Your task to perform on an android device: check storage Image 0: 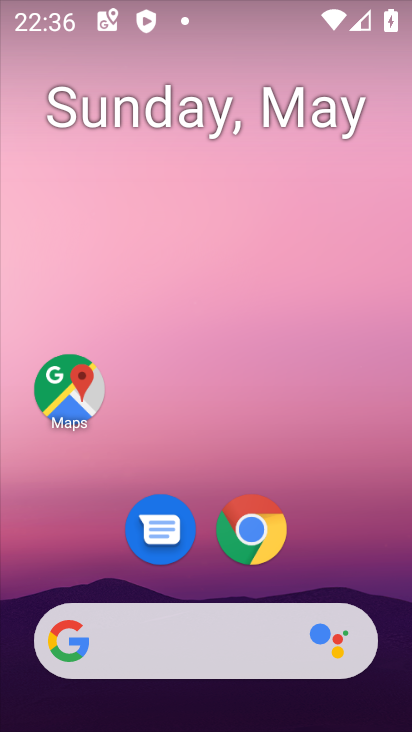
Step 0: drag from (377, 556) to (354, 308)
Your task to perform on an android device: check storage Image 1: 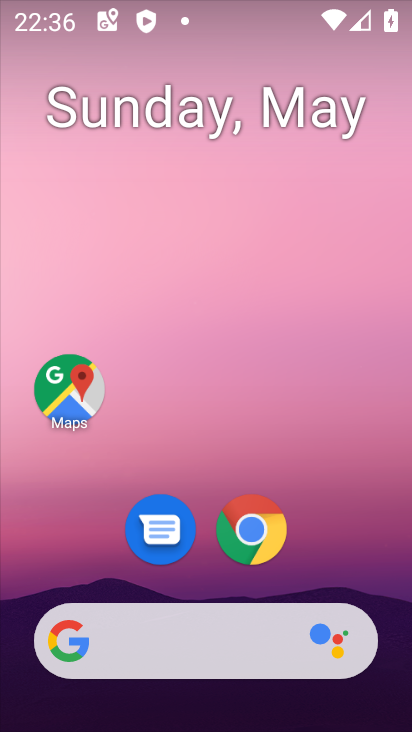
Step 1: drag from (377, 554) to (193, 16)
Your task to perform on an android device: check storage Image 2: 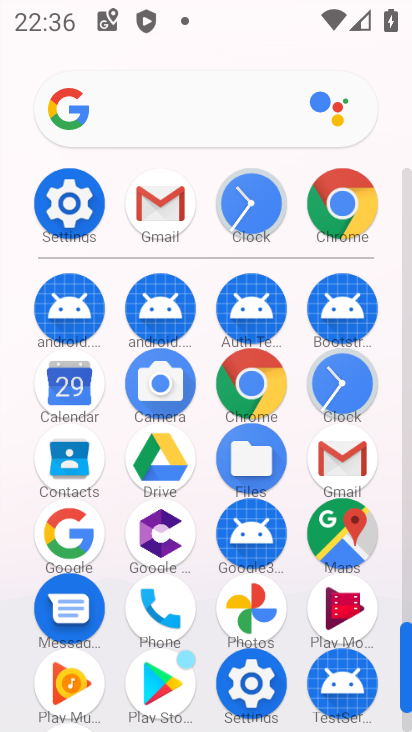
Step 2: click (75, 231)
Your task to perform on an android device: check storage Image 3: 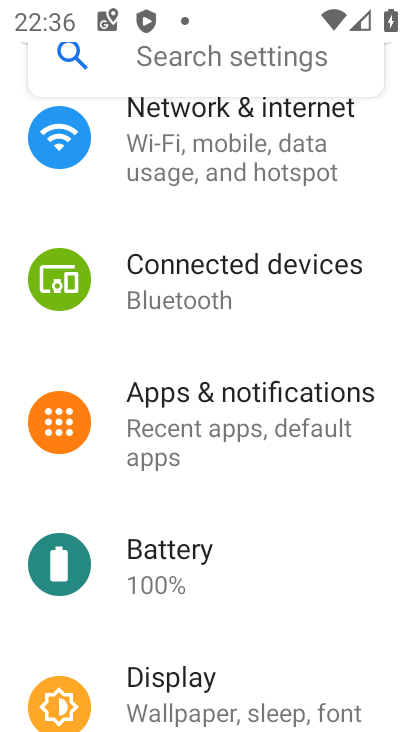
Step 3: drag from (189, 631) to (186, 164)
Your task to perform on an android device: check storage Image 4: 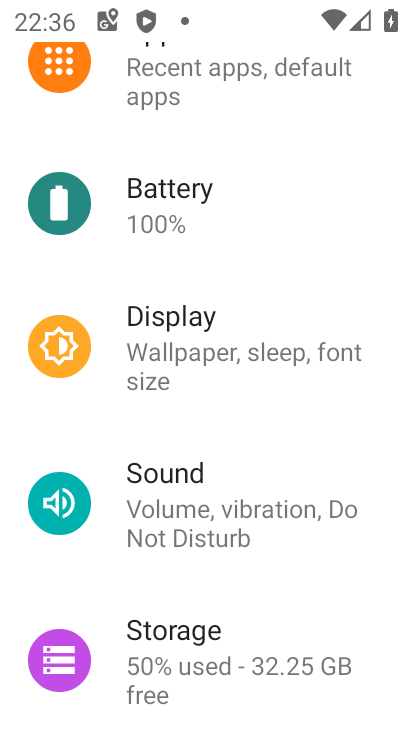
Step 4: click (221, 601)
Your task to perform on an android device: check storage Image 5: 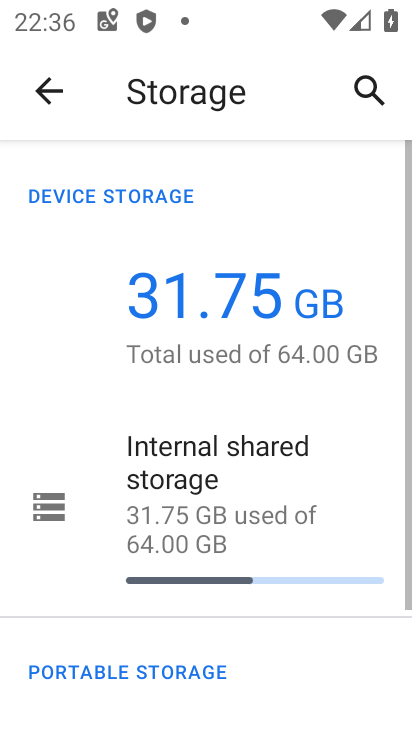
Step 5: task complete